Your task to perform on an android device: Go to Amazon Image 0: 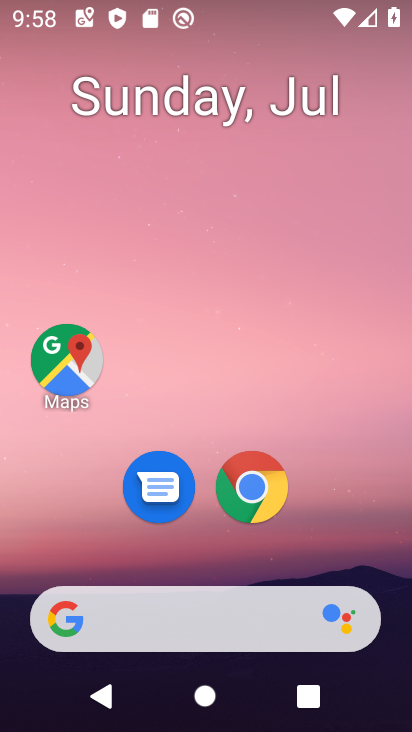
Step 0: click (257, 482)
Your task to perform on an android device: Go to Amazon Image 1: 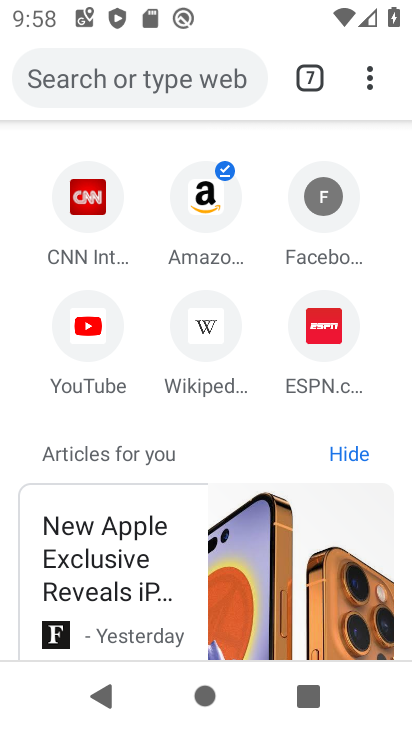
Step 1: click (210, 228)
Your task to perform on an android device: Go to Amazon Image 2: 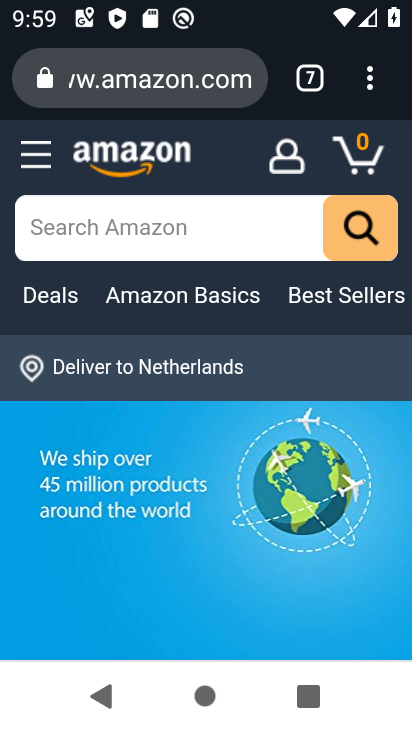
Step 2: task complete